Your task to perform on an android device: read, delete, or share a saved page in the chrome app Image 0: 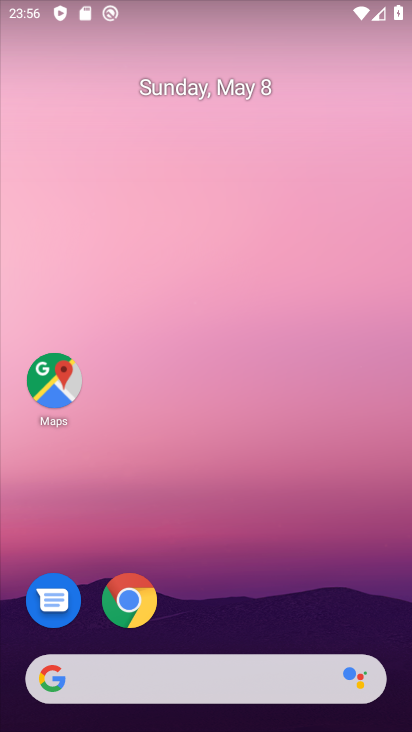
Step 0: click (141, 603)
Your task to perform on an android device: read, delete, or share a saved page in the chrome app Image 1: 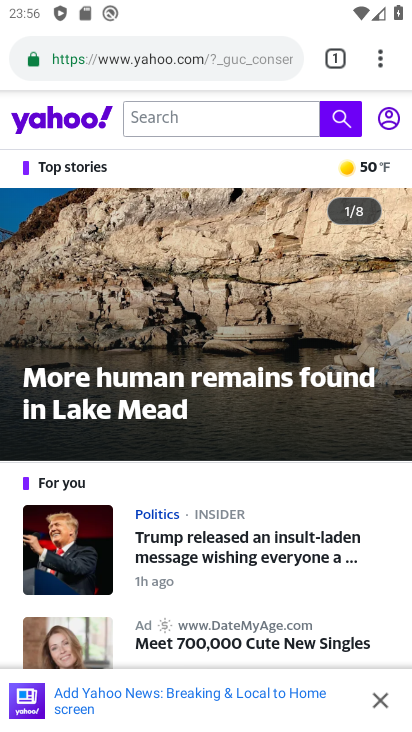
Step 1: drag from (386, 50) to (218, 387)
Your task to perform on an android device: read, delete, or share a saved page in the chrome app Image 2: 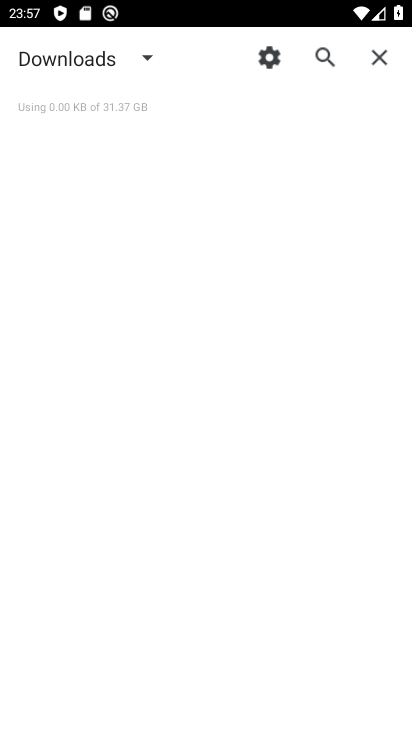
Step 2: click (147, 56)
Your task to perform on an android device: read, delete, or share a saved page in the chrome app Image 3: 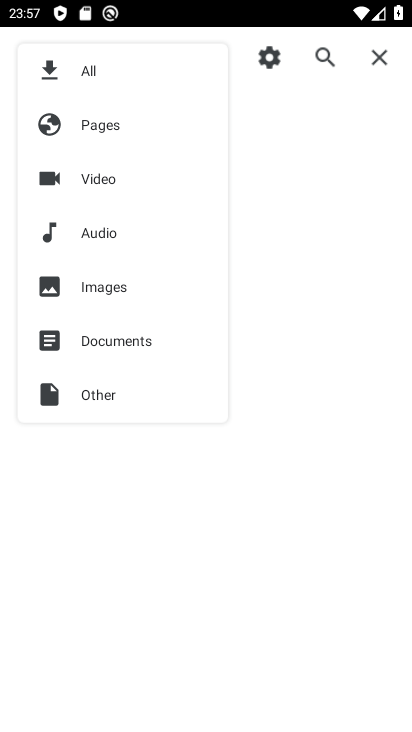
Step 3: click (135, 127)
Your task to perform on an android device: read, delete, or share a saved page in the chrome app Image 4: 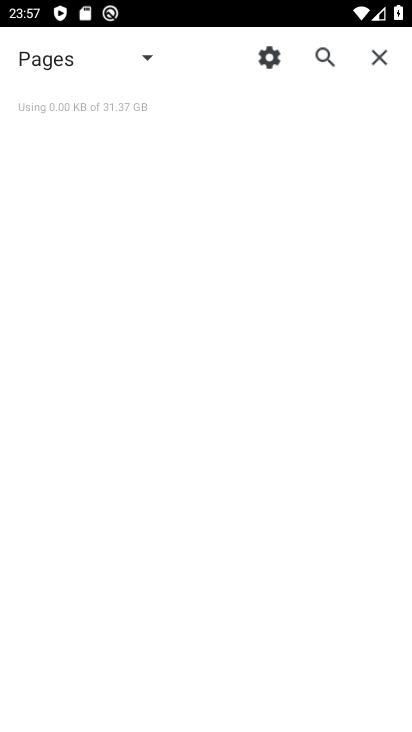
Step 4: task complete